Your task to perform on an android device: change the clock display to digital Image 0: 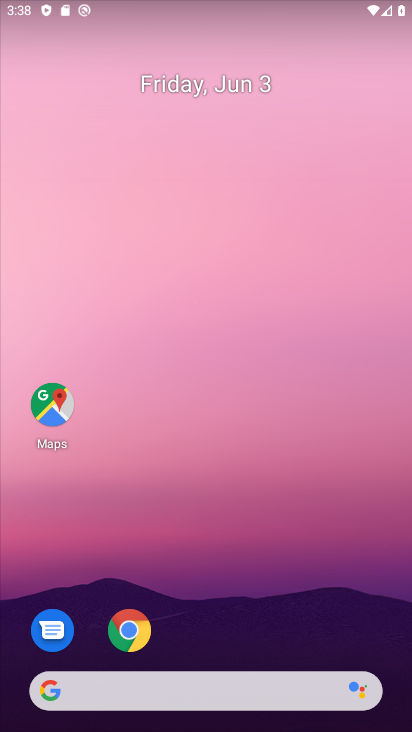
Step 0: drag from (253, 581) to (321, 98)
Your task to perform on an android device: change the clock display to digital Image 1: 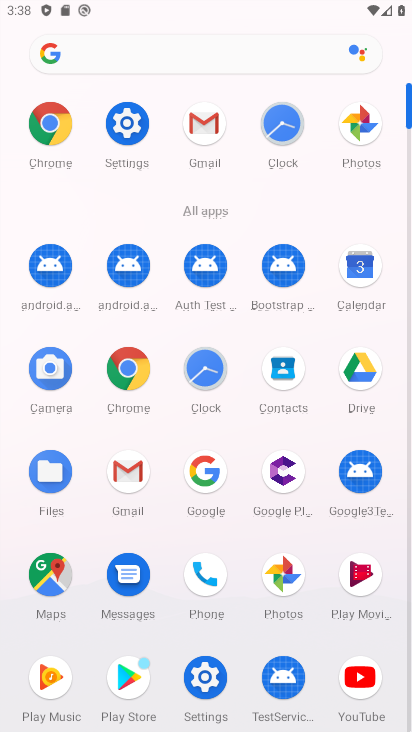
Step 1: click (216, 369)
Your task to perform on an android device: change the clock display to digital Image 2: 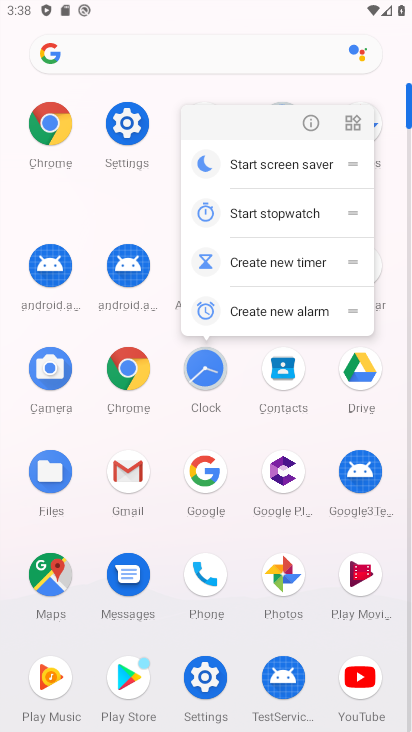
Step 2: click (209, 360)
Your task to perform on an android device: change the clock display to digital Image 3: 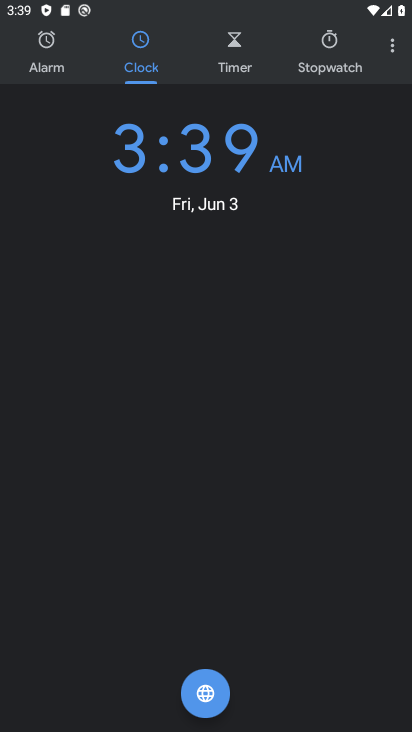
Step 3: click (393, 50)
Your task to perform on an android device: change the clock display to digital Image 4: 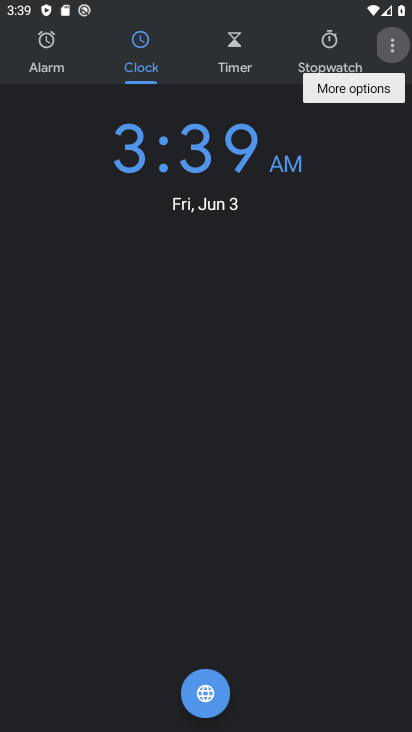
Step 4: click (393, 50)
Your task to perform on an android device: change the clock display to digital Image 5: 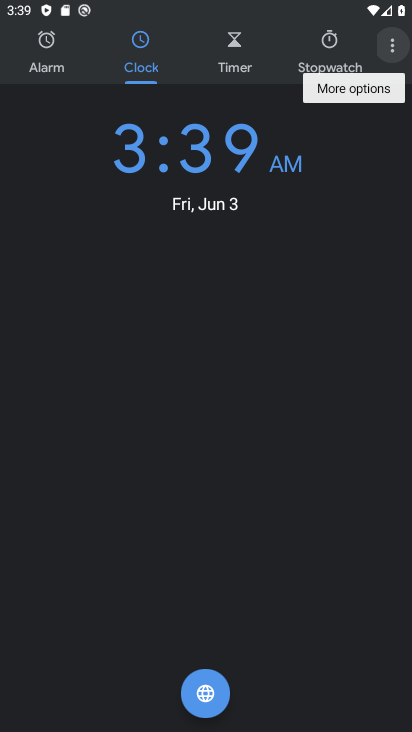
Step 5: click (393, 50)
Your task to perform on an android device: change the clock display to digital Image 6: 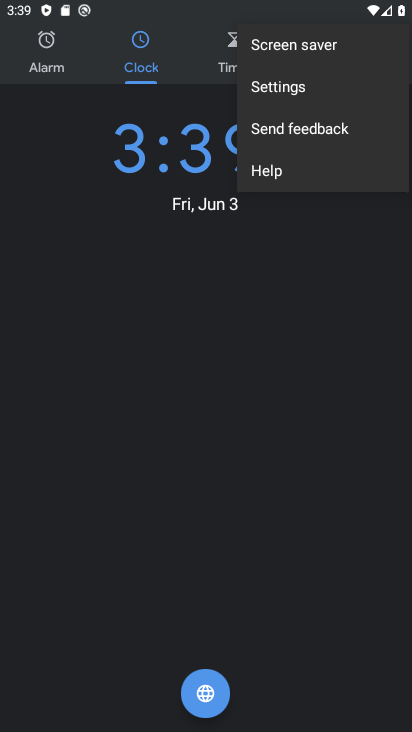
Step 6: click (276, 84)
Your task to perform on an android device: change the clock display to digital Image 7: 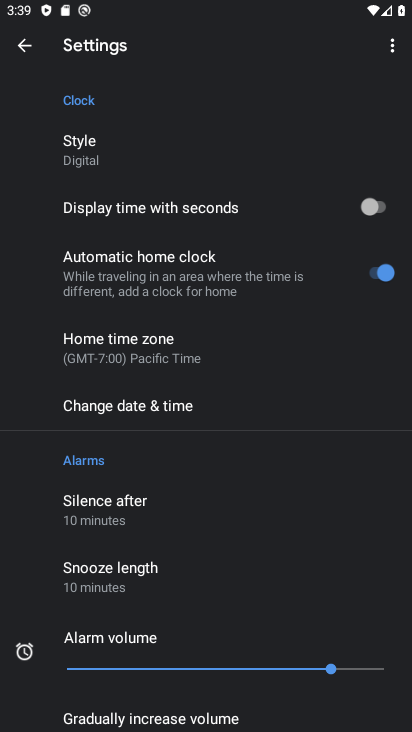
Step 7: task complete